Your task to perform on an android device: manage bookmarks in the chrome app Image 0: 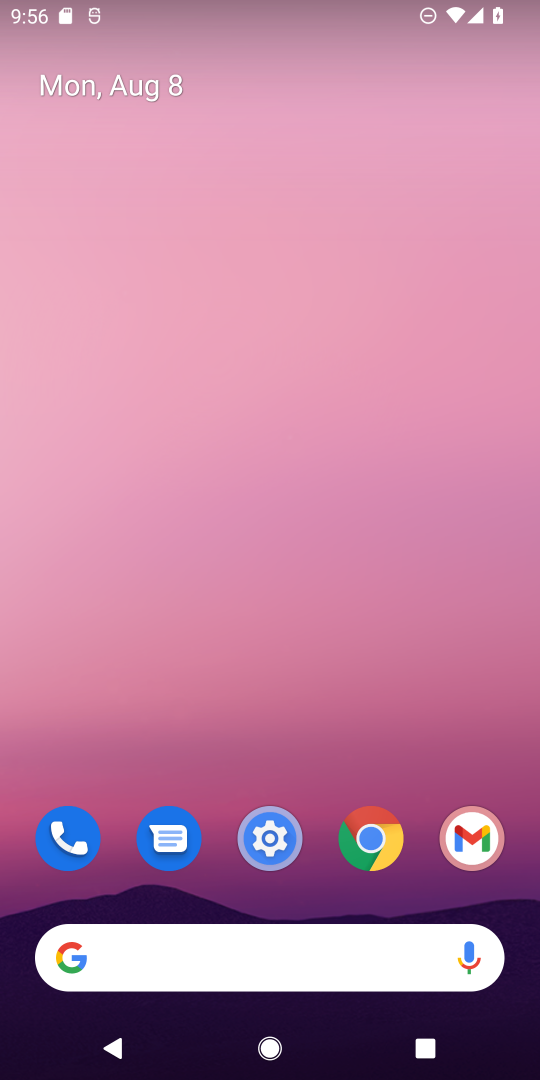
Step 0: press home button
Your task to perform on an android device: manage bookmarks in the chrome app Image 1: 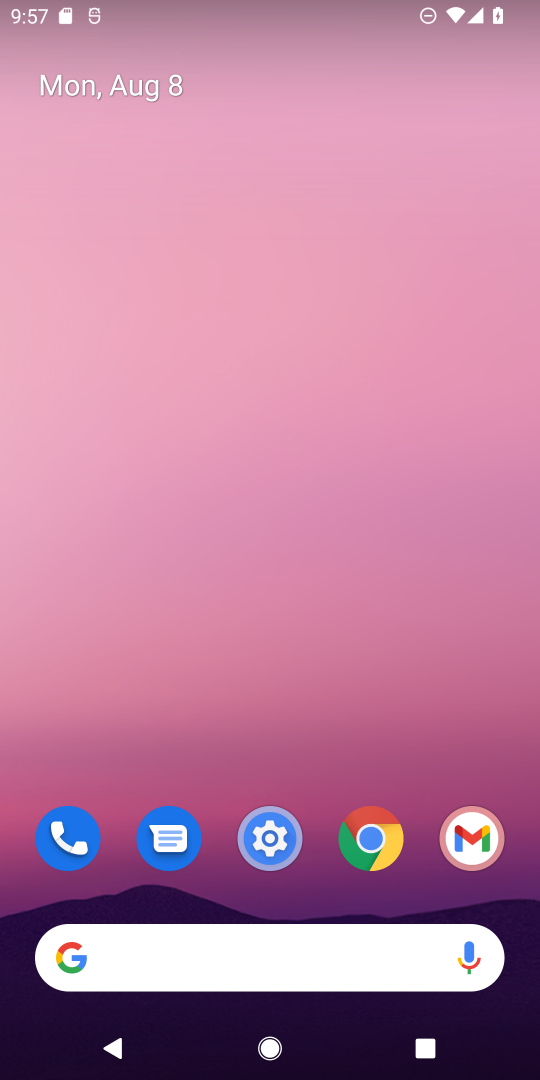
Step 1: drag from (317, 899) to (303, 204)
Your task to perform on an android device: manage bookmarks in the chrome app Image 2: 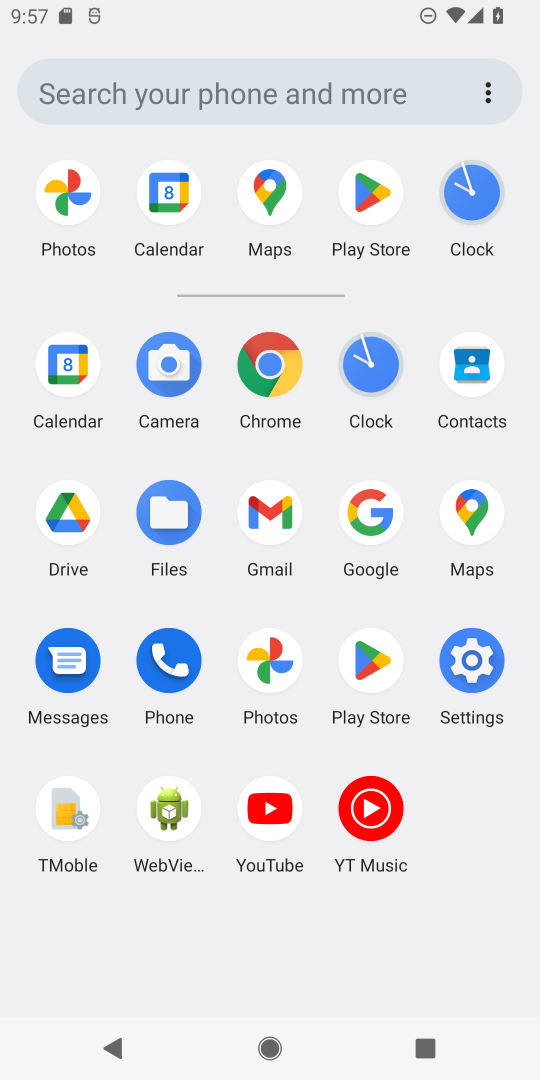
Step 2: click (261, 374)
Your task to perform on an android device: manage bookmarks in the chrome app Image 3: 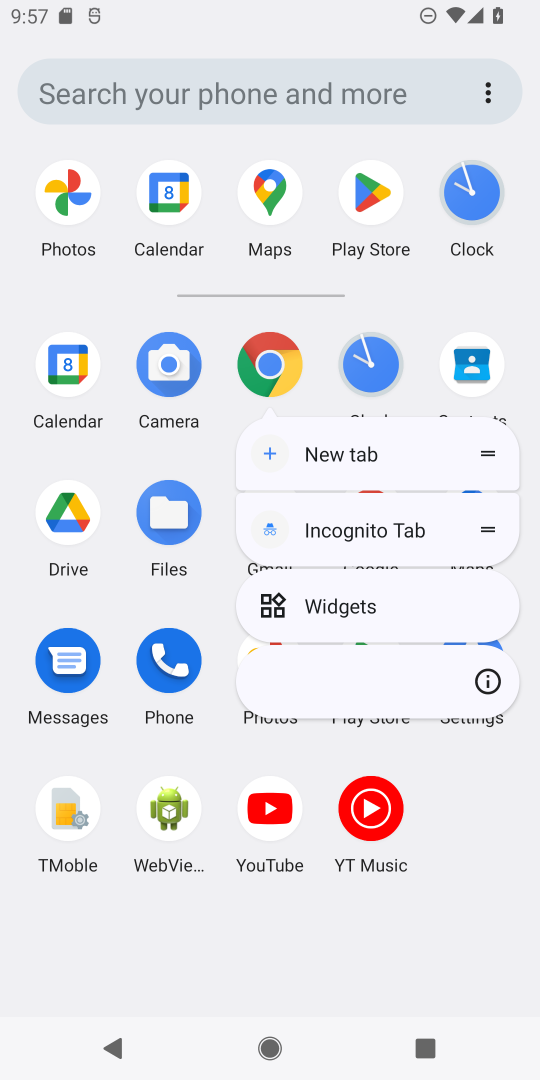
Step 3: click (262, 373)
Your task to perform on an android device: manage bookmarks in the chrome app Image 4: 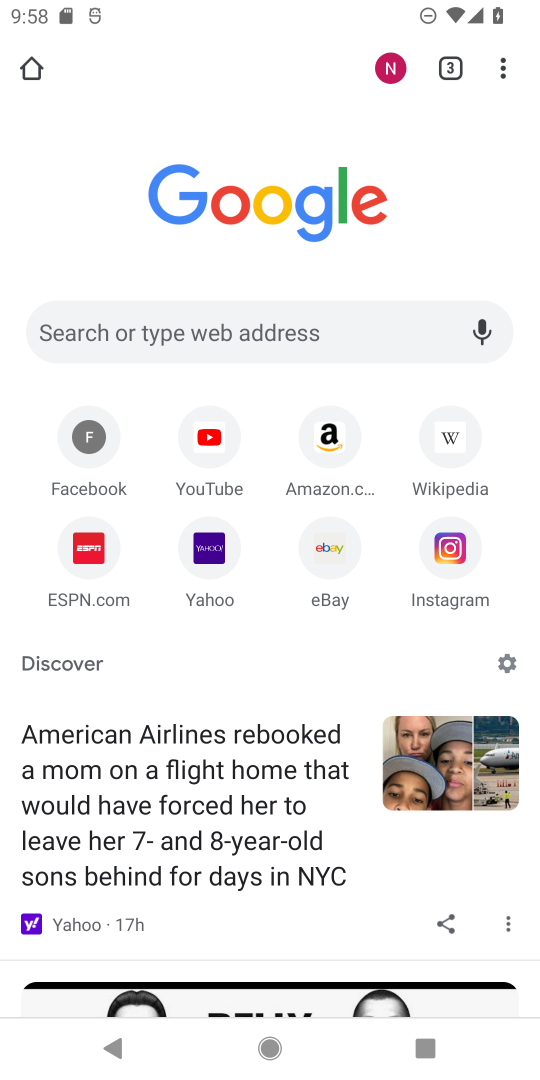
Step 4: drag from (511, 72) to (317, 498)
Your task to perform on an android device: manage bookmarks in the chrome app Image 5: 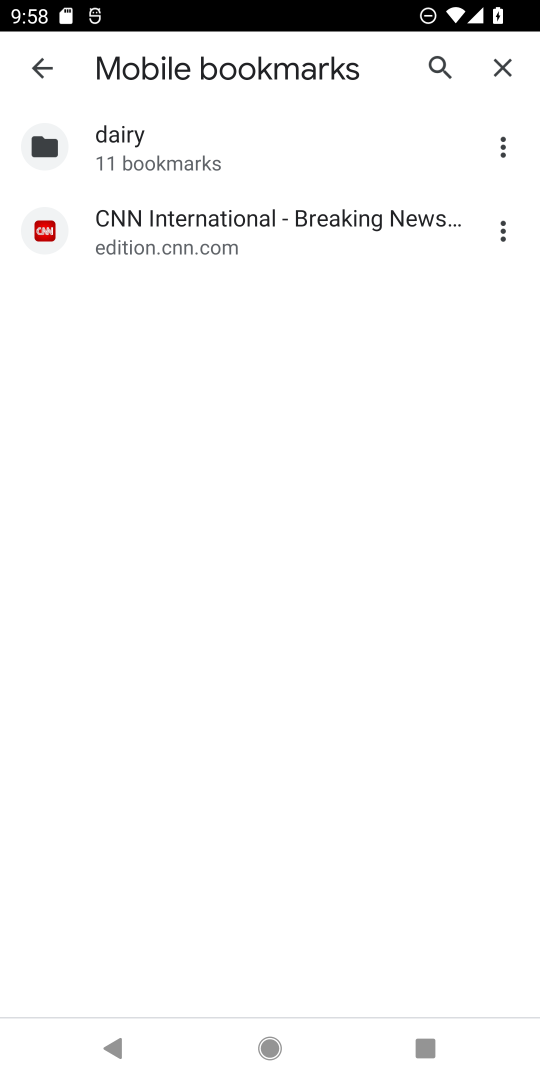
Step 5: click (506, 226)
Your task to perform on an android device: manage bookmarks in the chrome app Image 6: 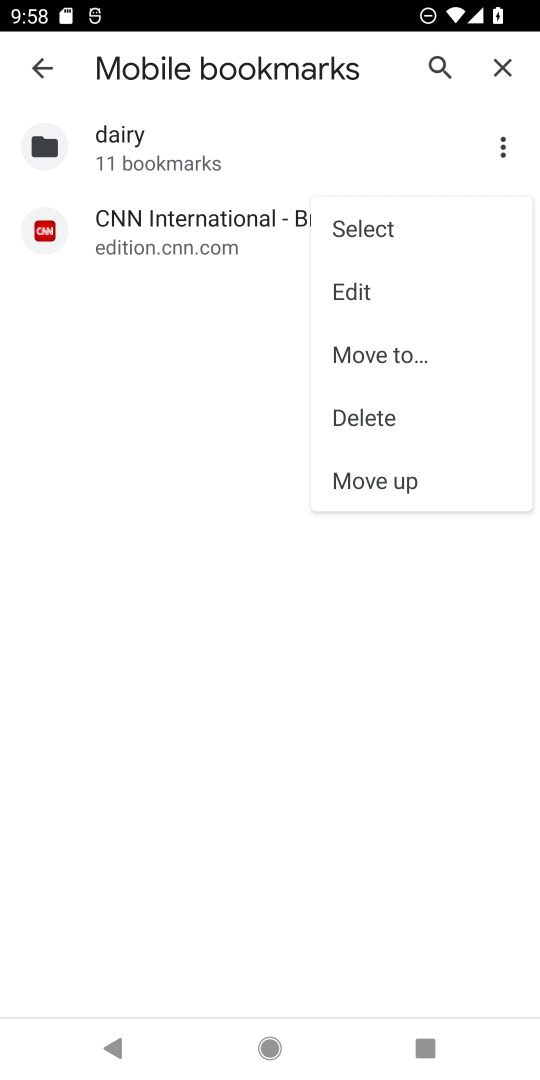
Step 6: click (352, 299)
Your task to perform on an android device: manage bookmarks in the chrome app Image 7: 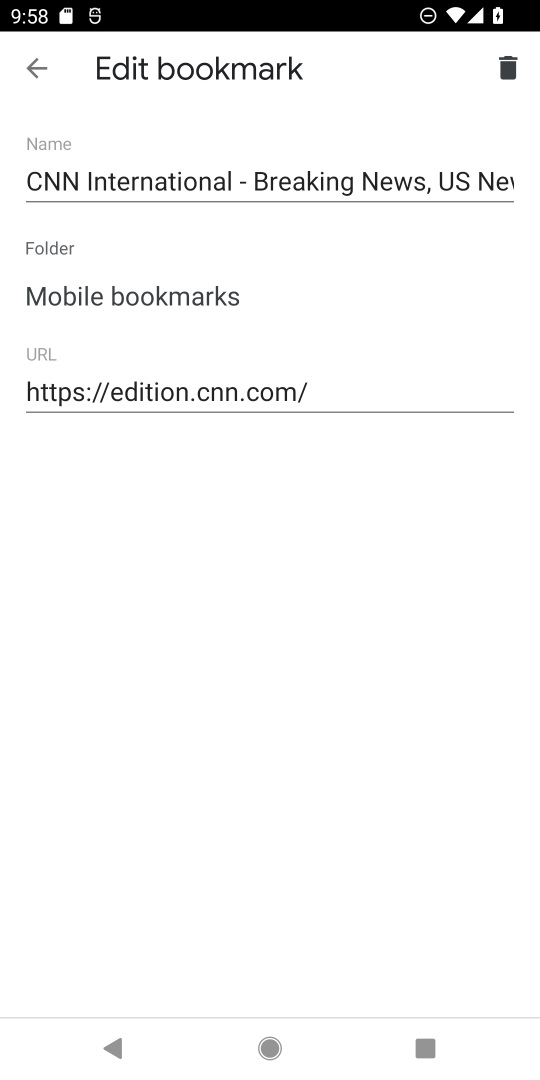
Step 7: task complete